Your task to perform on an android device: Go to Wikipedia Image 0: 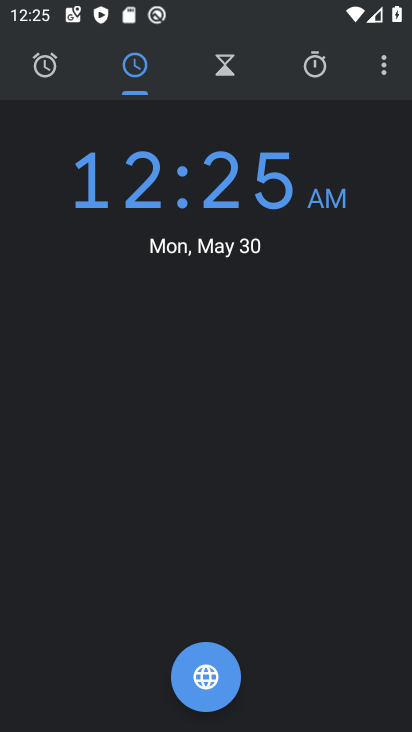
Step 0: press home button
Your task to perform on an android device: Go to Wikipedia Image 1: 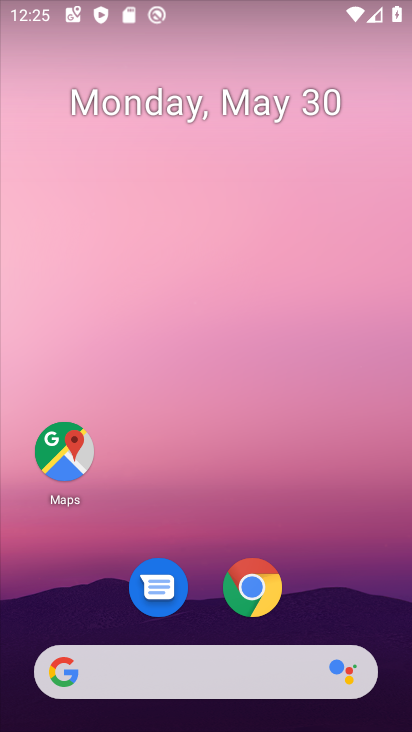
Step 1: click (259, 592)
Your task to perform on an android device: Go to Wikipedia Image 2: 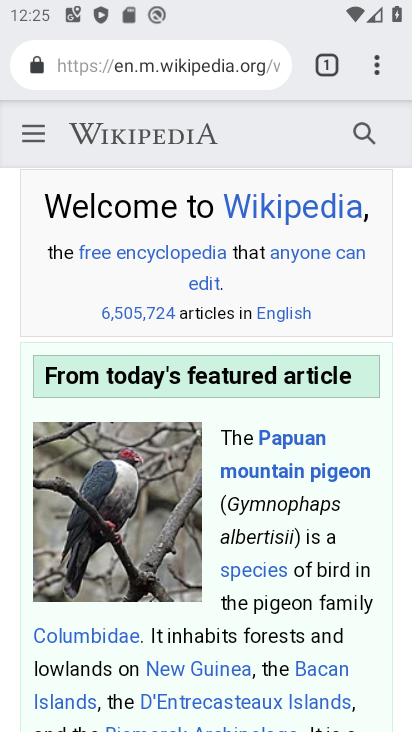
Step 2: task complete